Your task to perform on an android device: allow notifications from all sites in the chrome app Image 0: 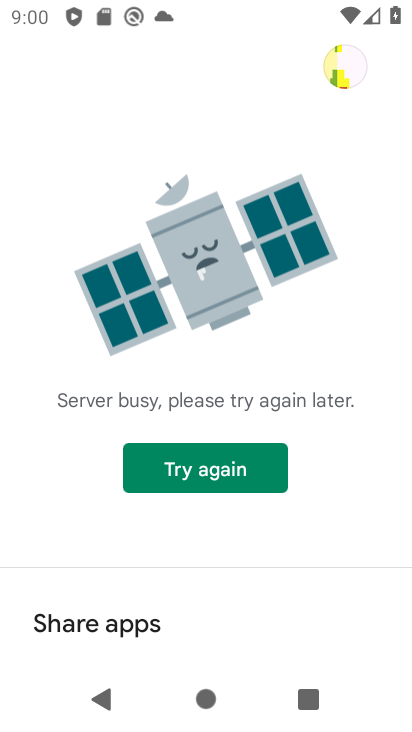
Step 0: press home button
Your task to perform on an android device: allow notifications from all sites in the chrome app Image 1: 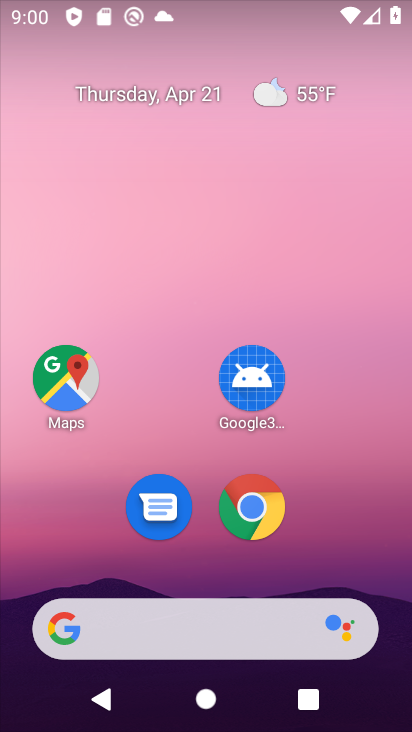
Step 1: drag from (200, 559) to (136, 203)
Your task to perform on an android device: allow notifications from all sites in the chrome app Image 2: 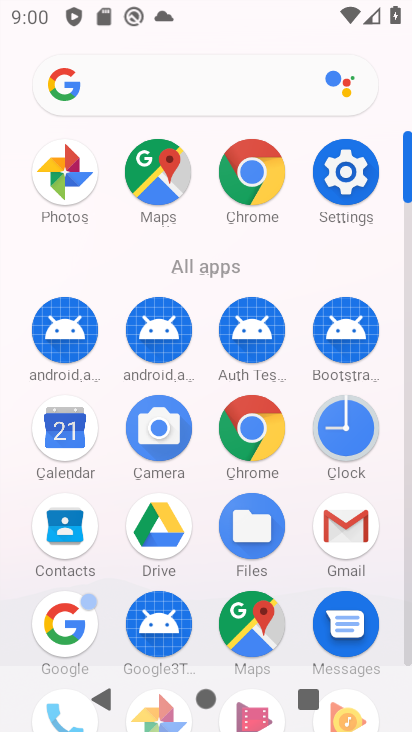
Step 2: click (251, 418)
Your task to perform on an android device: allow notifications from all sites in the chrome app Image 3: 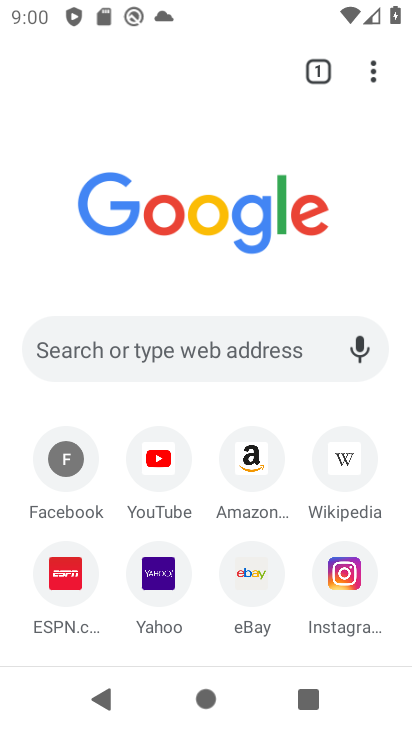
Step 3: click (359, 67)
Your task to perform on an android device: allow notifications from all sites in the chrome app Image 4: 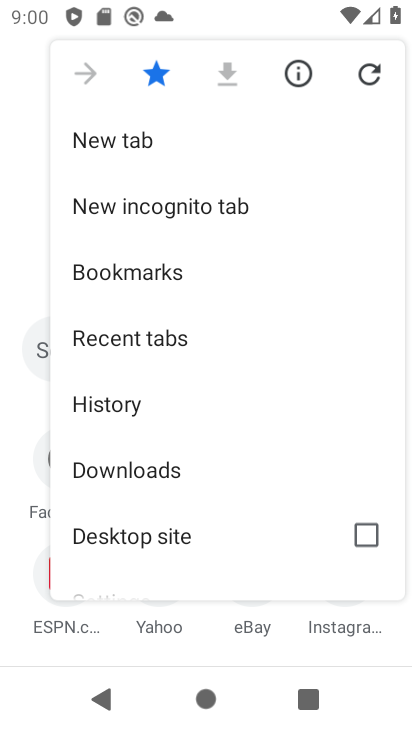
Step 4: drag from (252, 507) to (313, 121)
Your task to perform on an android device: allow notifications from all sites in the chrome app Image 5: 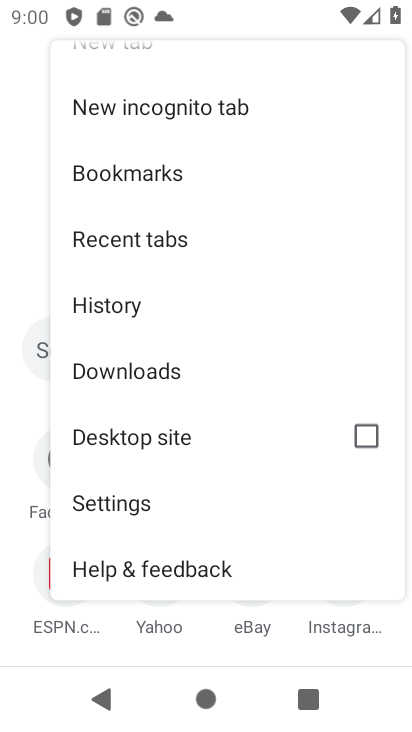
Step 5: click (147, 508)
Your task to perform on an android device: allow notifications from all sites in the chrome app Image 6: 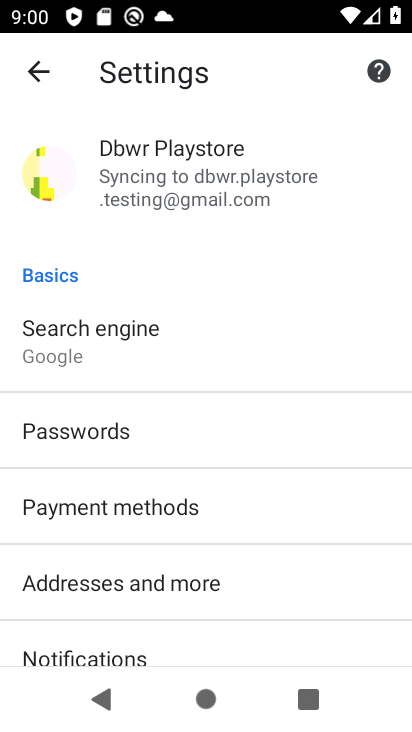
Step 6: drag from (171, 612) to (249, 142)
Your task to perform on an android device: allow notifications from all sites in the chrome app Image 7: 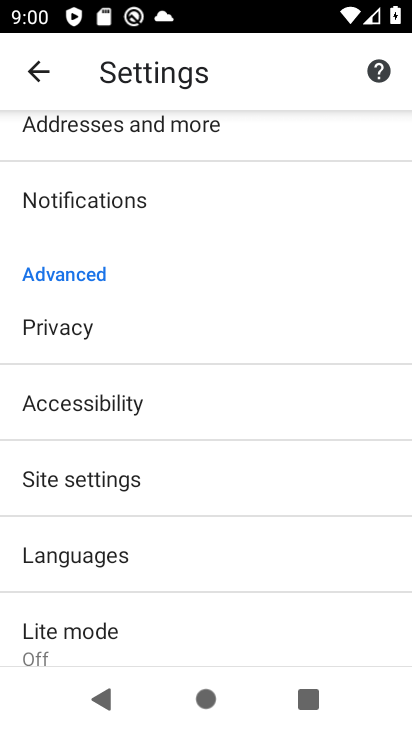
Step 7: click (114, 471)
Your task to perform on an android device: allow notifications from all sites in the chrome app Image 8: 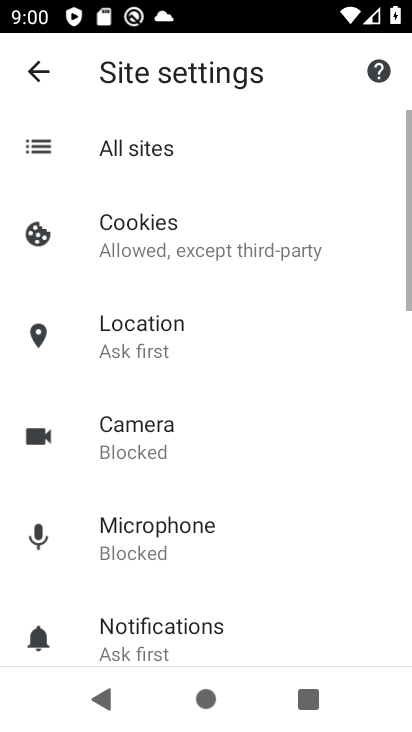
Step 8: click (235, 224)
Your task to perform on an android device: allow notifications from all sites in the chrome app Image 9: 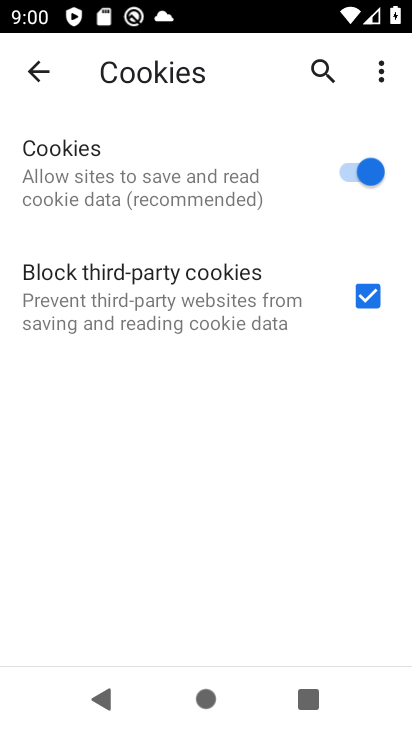
Step 9: click (29, 66)
Your task to perform on an android device: allow notifications from all sites in the chrome app Image 10: 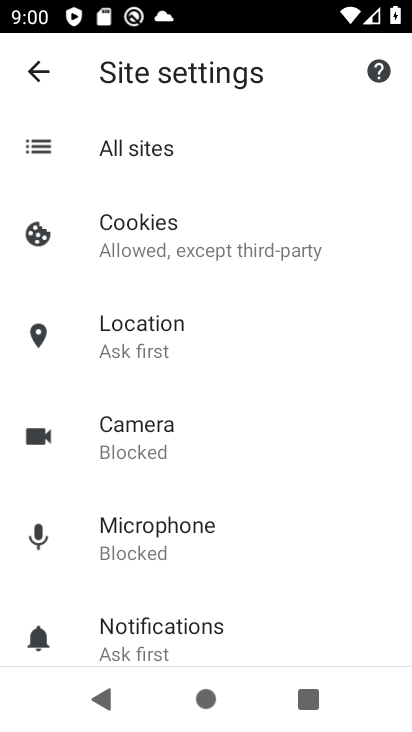
Step 10: click (182, 326)
Your task to perform on an android device: allow notifications from all sites in the chrome app Image 11: 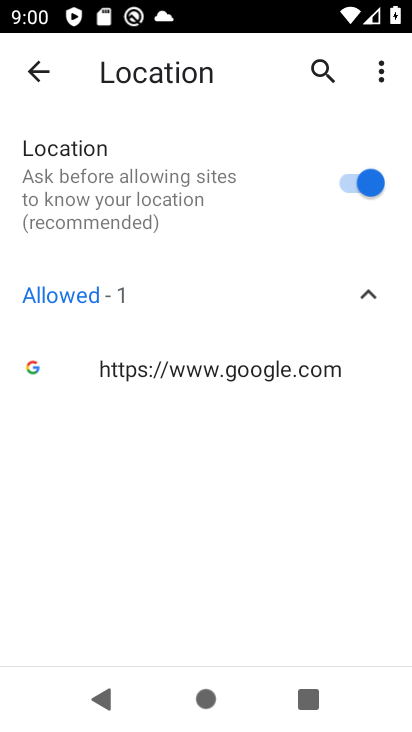
Step 11: click (41, 75)
Your task to perform on an android device: allow notifications from all sites in the chrome app Image 12: 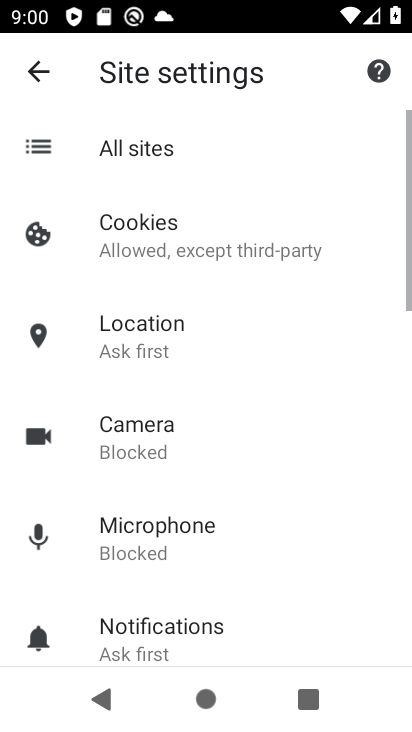
Step 12: click (195, 534)
Your task to perform on an android device: allow notifications from all sites in the chrome app Image 13: 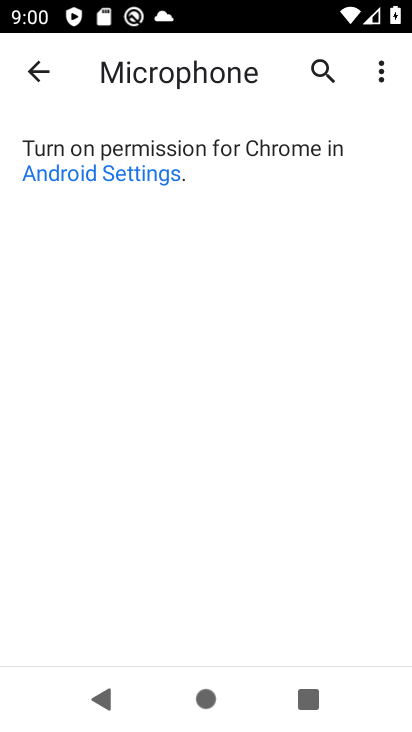
Step 13: click (31, 66)
Your task to perform on an android device: allow notifications from all sites in the chrome app Image 14: 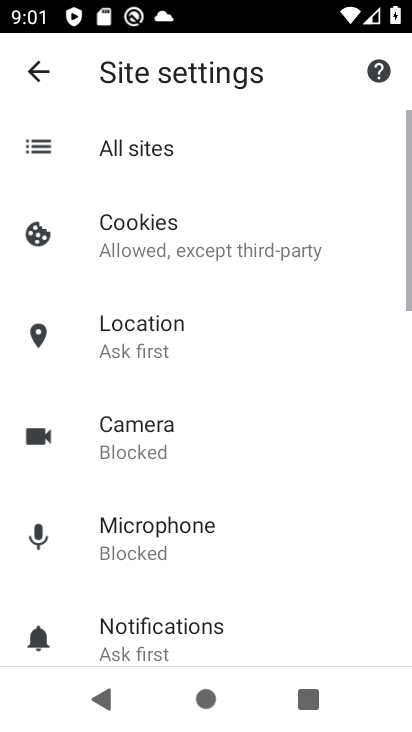
Step 14: drag from (226, 571) to (289, 197)
Your task to perform on an android device: allow notifications from all sites in the chrome app Image 15: 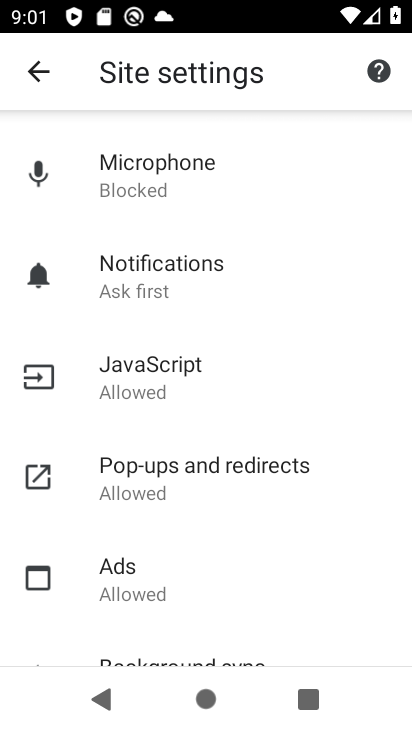
Step 15: click (203, 248)
Your task to perform on an android device: allow notifications from all sites in the chrome app Image 16: 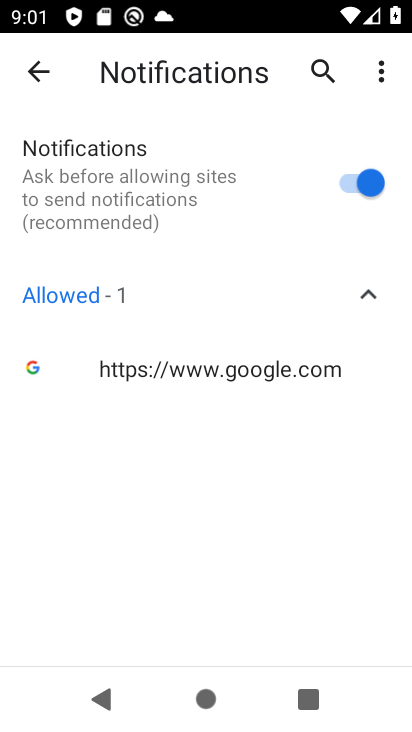
Step 16: click (41, 68)
Your task to perform on an android device: allow notifications from all sites in the chrome app Image 17: 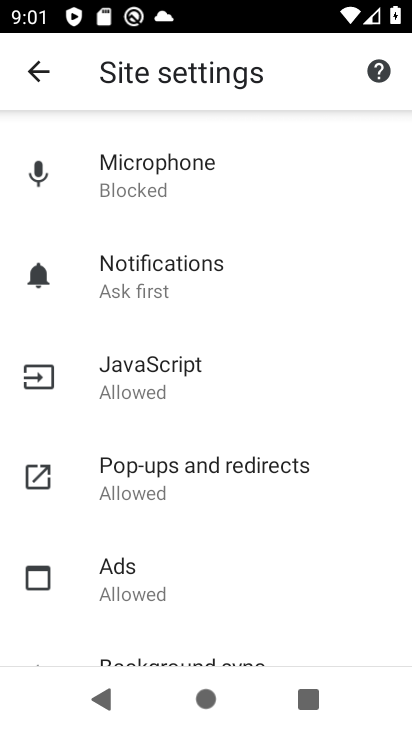
Step 17: click (172, 386)
Your task to perform on an android device: allow notifications from all sites in the chrome app Image 18: 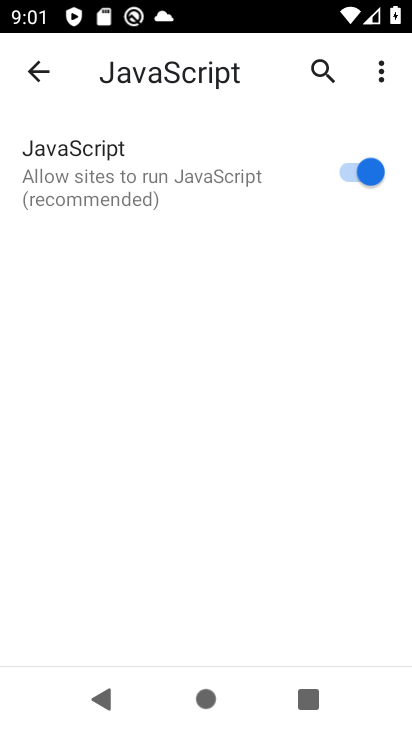
Step 18: click (26, 70)
Your task to perform on an android device: allow notifications from all sites in the chrome app Image 19: 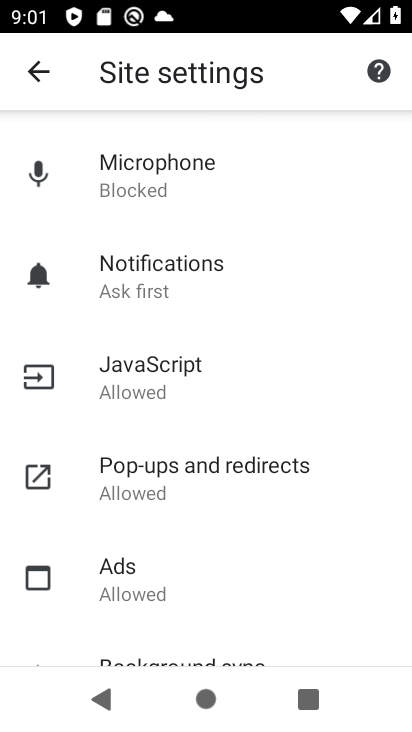
Step 19: click (198, 479)
Your task to perform on an android device: allow notifications from all sites in the chrome app Image 20: 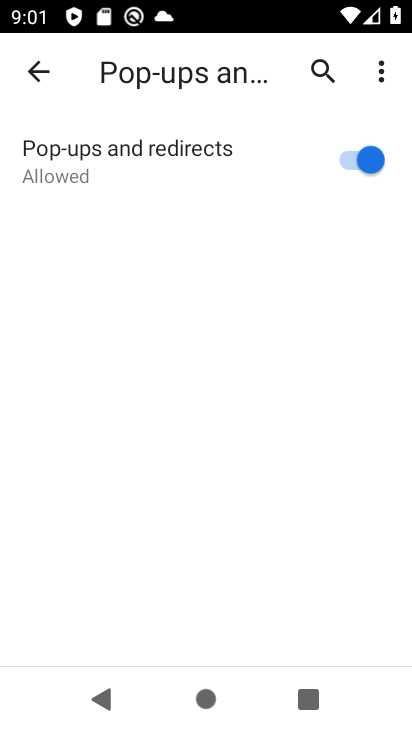
Step 20: click (40, 72)
Your task to perform on an android device: allow notifications from all sites in the chrome app Image 21: 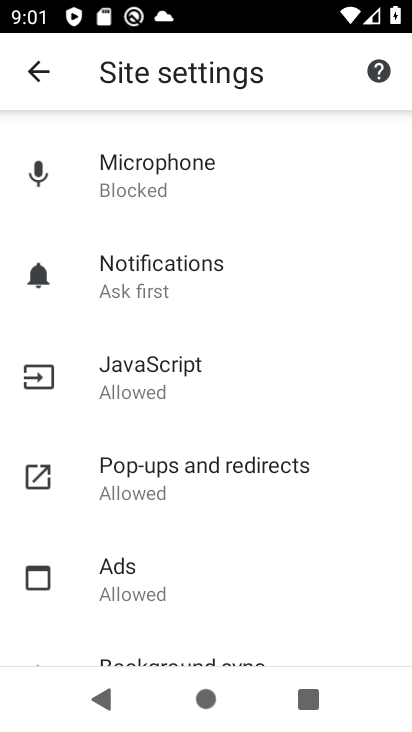
Step 21: drag from (214, 562) to (285, 171)
Your task to perform on an android device: allow notifications from all sites in the chrome app Image 22: 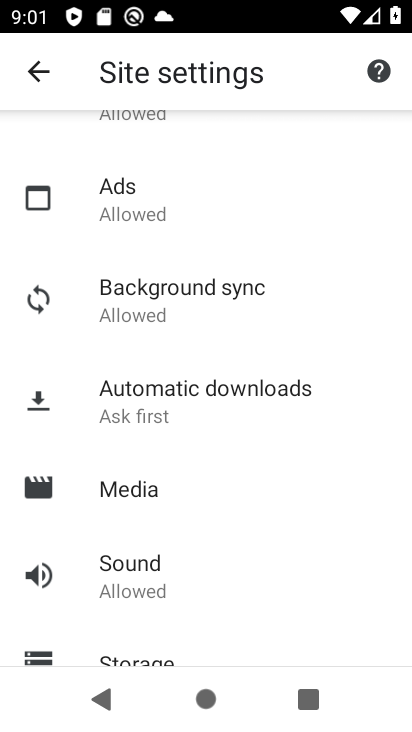
Step 22: click (241, 280)
Your task to perform on an android device: allow notifications from all sites in the chrome app Image 23: 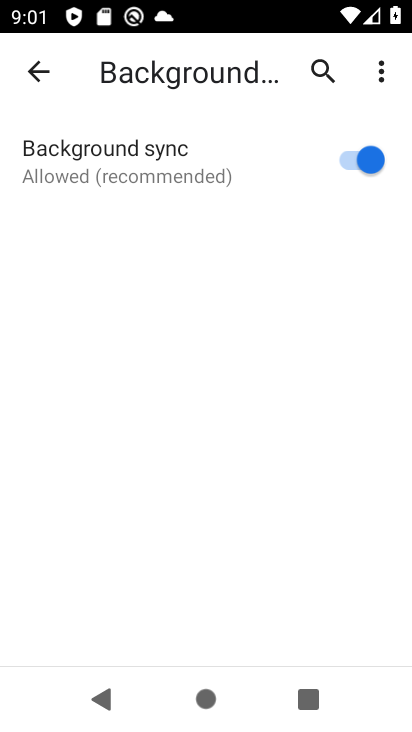
Step 23: click (39, 66)
Your task to perform on an android device: allow notifications from all sites in the chrome app Image 24: 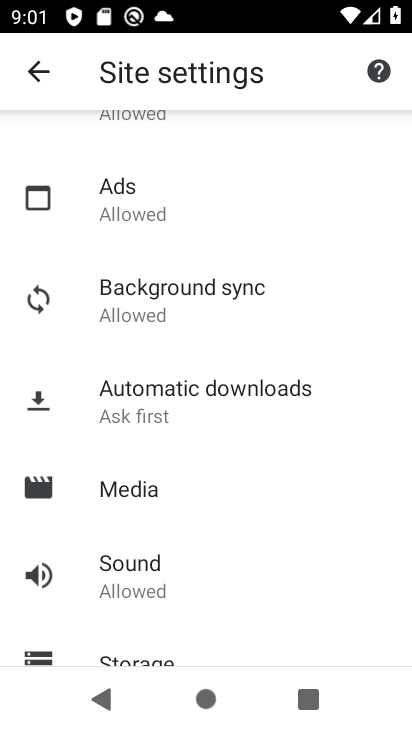
Step 24: click (168, 506)
Your task to perform on an android device: allow notifications from all sites in the chrome app Image 25: 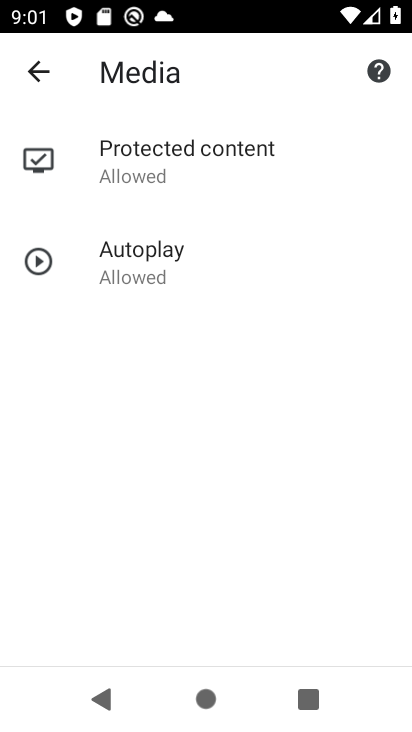
Step 25: click (38, 64)
Your task to perform on an android device: allow notifications from all sites in the chrome app Image 26: 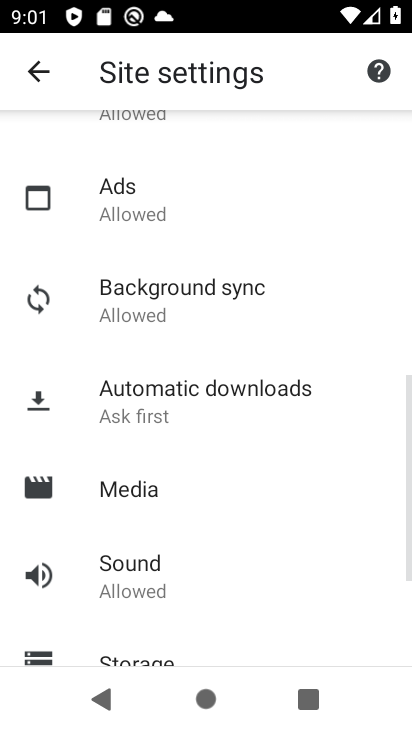
Step 26: click (161, 594)
Your task to perform on an android device: allow notifications from all sites in the chrome app Image 27: 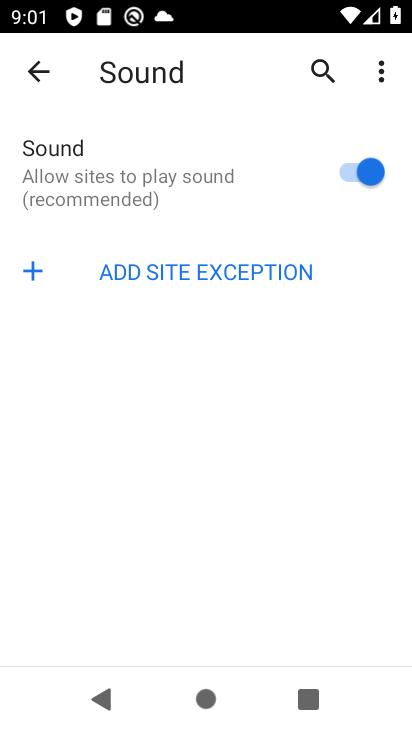
Step 27: click (36, 64)
Your task to perform on an android device: allow notifications from all sites in the chrome app Image 28: 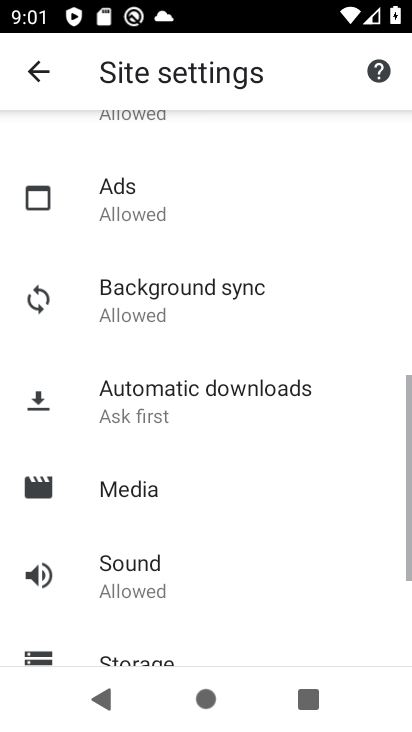
Step 28: drag from (199, 567) to (251, 217)
Your task to perform on an android device: allow notifications from all sites in the chrome app Image 29: 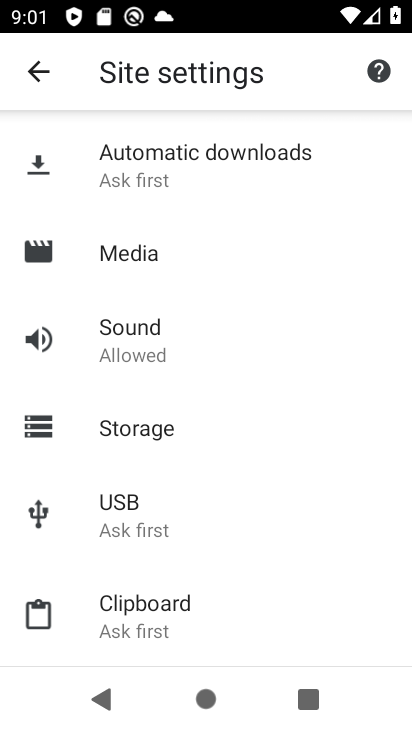
Step 29: click (179, 517)
Your task to perform on an android device: allow notifications from all sites in the chrome app Image 30: 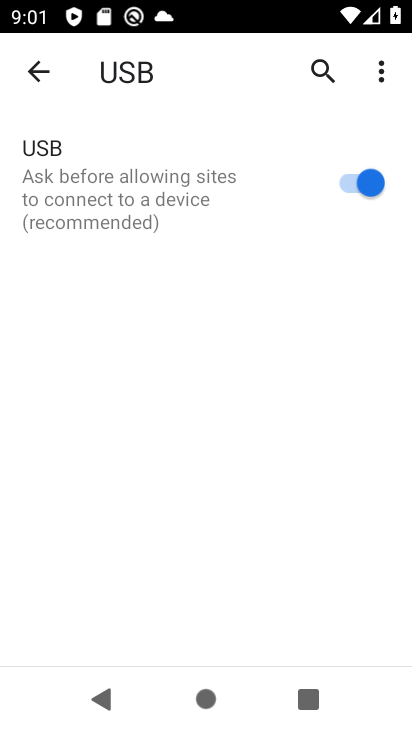
Step 30: click (35, 69)
Your task to perform on an android device: allow notifications from all sites in the chrome app Image 31: 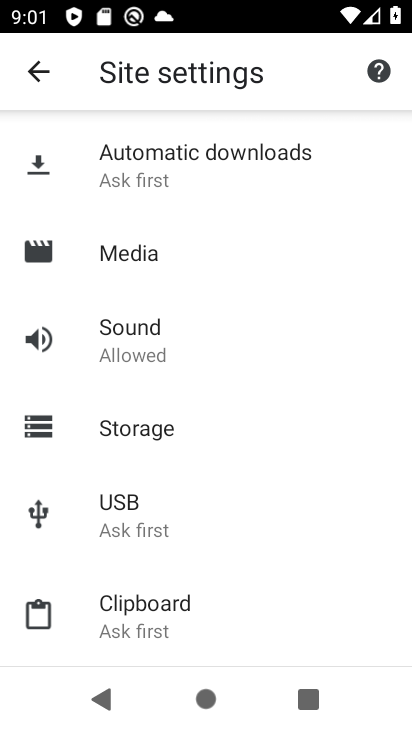
Step 31: task complete